Your task to perform on an android device: change notification settings in the gmail app Image 0: 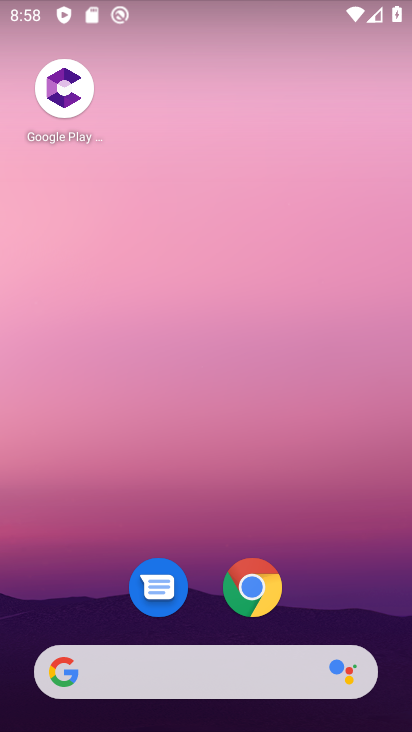
Step 0: drag from (330, 491) to (237, 104)
Your task to perform on an android device: change notification settings in the gmail app Image 1: 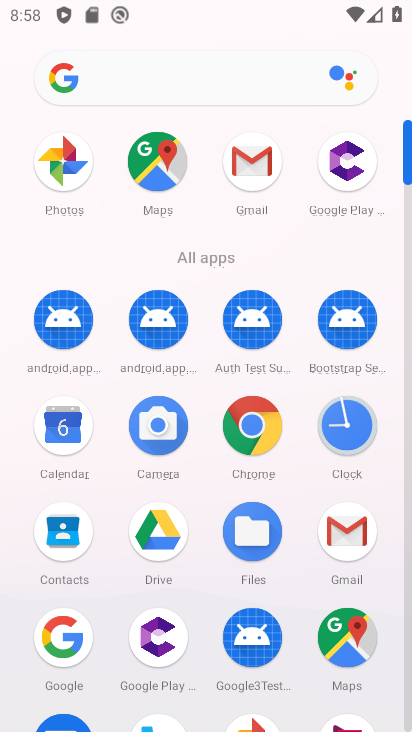
Step 1: click (277, 159)
Your task to perform on an android device: change notification settings in the gmail app Image 2: 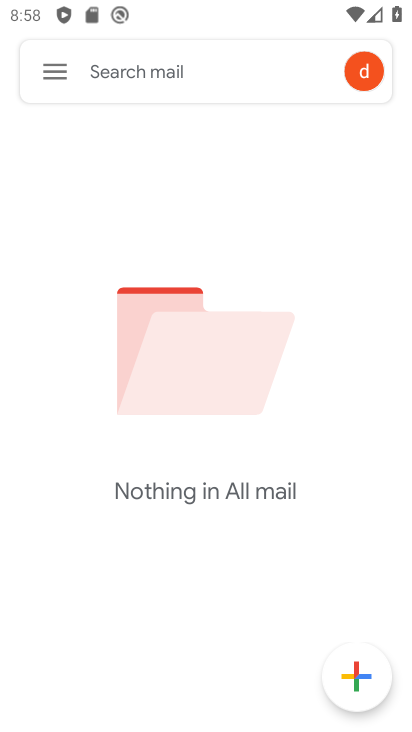
Step 2: click (54, 67)
Your task to perform on an android device: change notification settings in the gmail app Image 3: 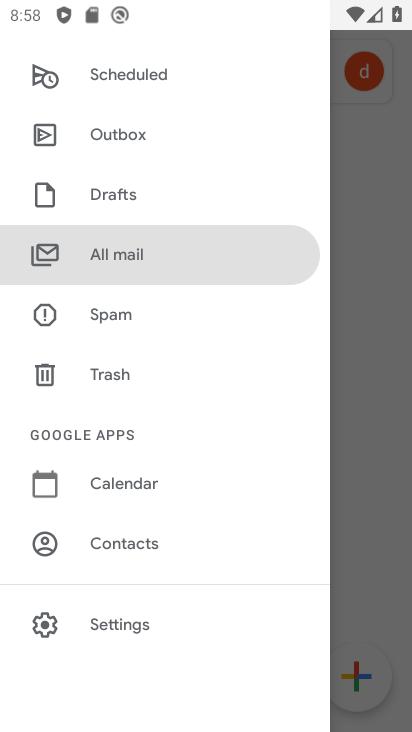
Step 3: click (138, 629)
Your task to perform on an android device: change notification settings in the gmail app Image 4: 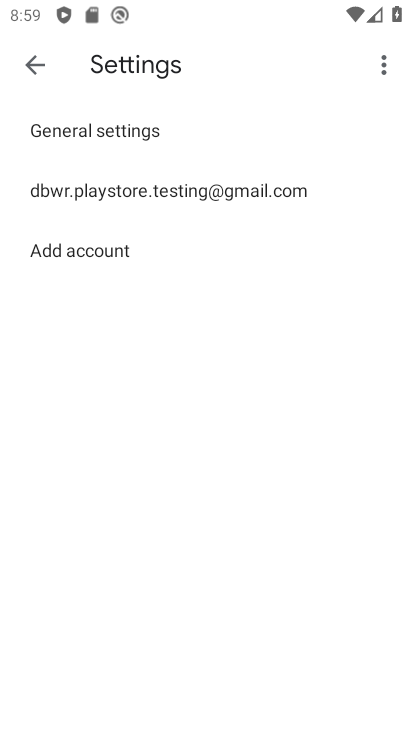
Step 4: click (198, 205)
Your task to perform on an android device: change notification settings in the gmail app Image 5: 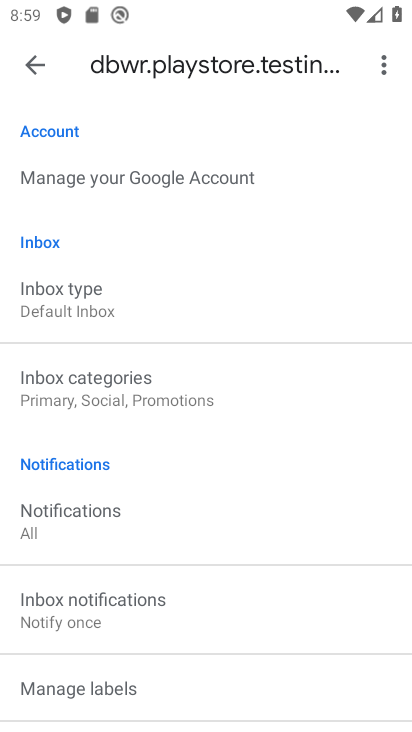
Step 5: drag from (174, 570) to (237, 181)
Your task to perform on an android device: change notification settings in the gmail app Image 6: 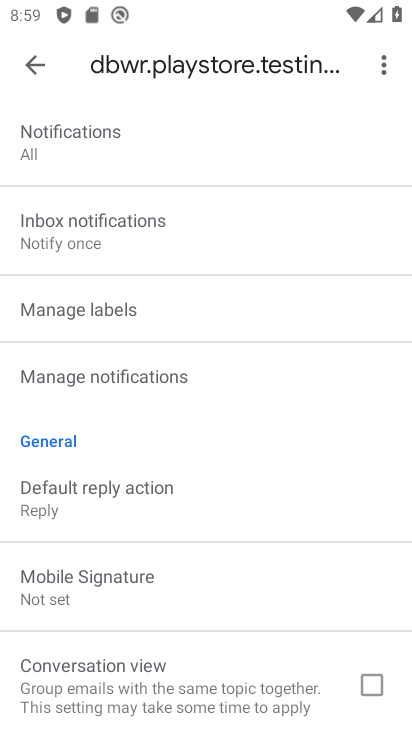
Step 6: click (129, 370)
Your task to perform on an android device: change notification settings in the gmail app Image 7: 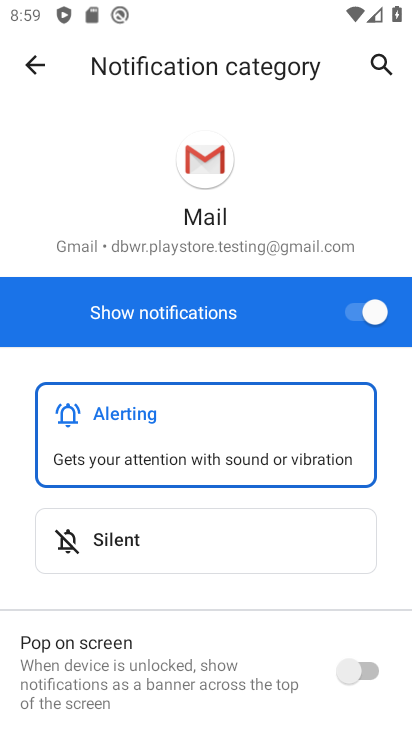
Step 7: click (376, 310)
Your task to perform on an android device: change notification settings in the gmail app Image 8: 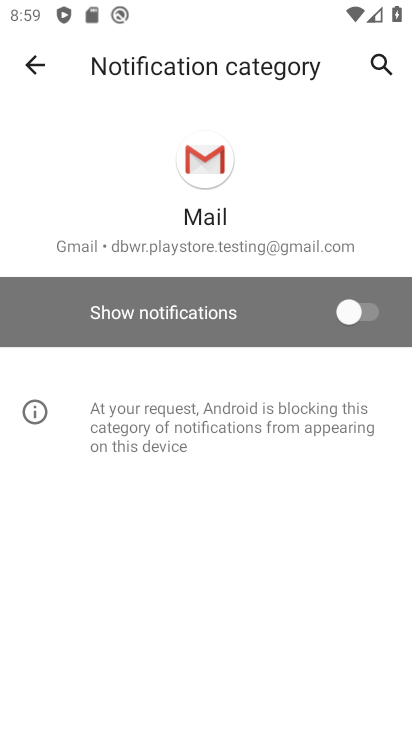
Step 8: task complete